Your task to perform on an android device: turn off javascript in the chrome app Image 0: 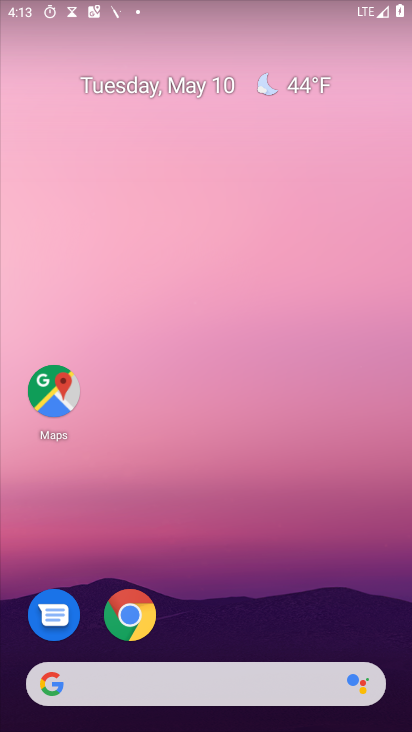
Step 0: drag from (318, 665) to (302, 0)
Your task to perform on an android device: turn off javascript in the chrome app Image 1: 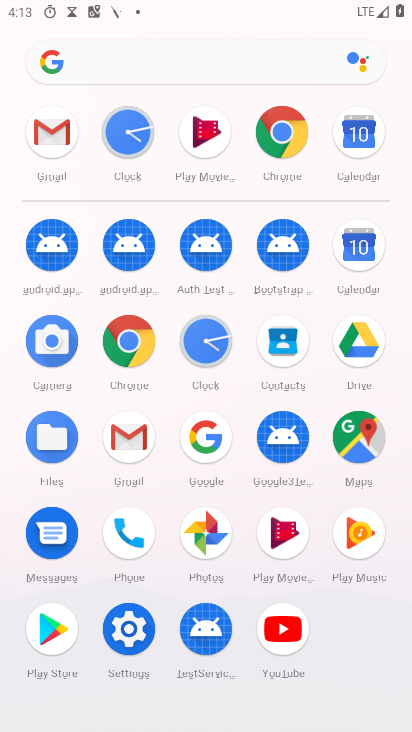
Step 1: click (125, 348)
Your task to perform on an android device: turn off javascript in the chrome app Image 2: 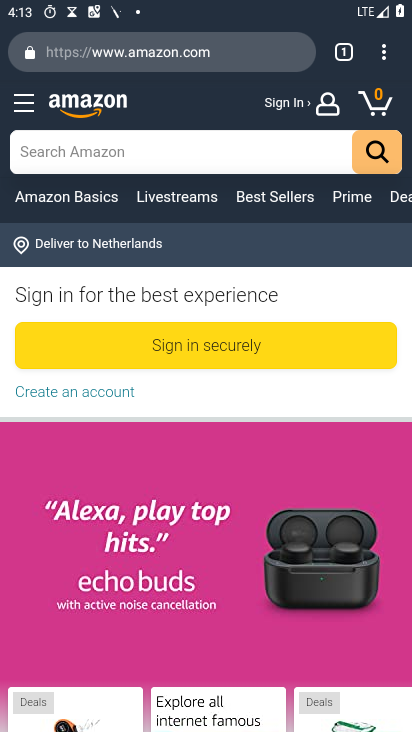
Step 2: drag from (386, 49) to (241, 623)
Your task to perform on an android device: turn off javascript in the chrome app Image 3: 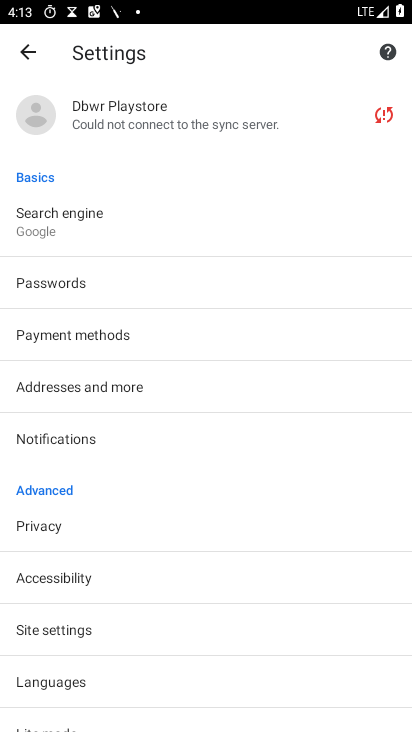
Step 3: drag from (132, 646) to (130, 435)
Your task to perform on an android device: turn off javascript in the chrome app Image 4: 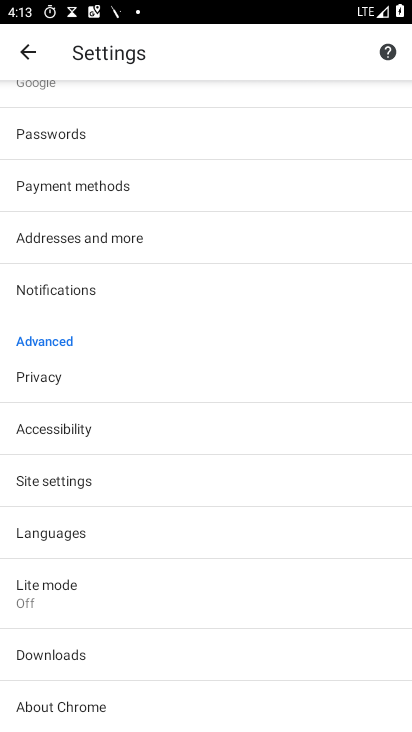
Step 4: click (86, 466)
Your task to perform on an android device: turn off javascript in the chrome app Image 5: 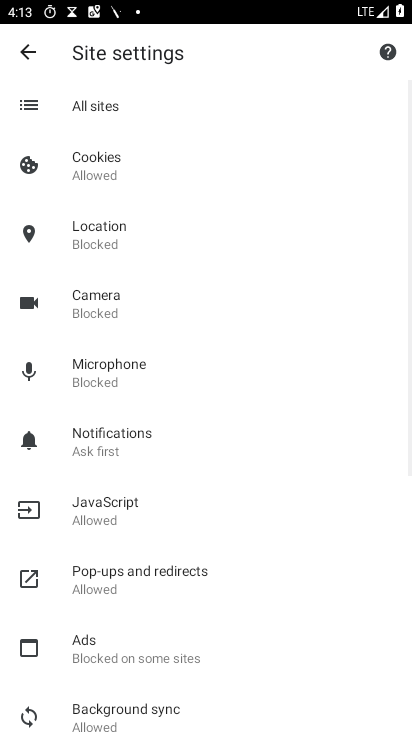
Step 5: click (159, 508)
Your task to perform on an android device: turn off javascript in the chrome app Image 6: 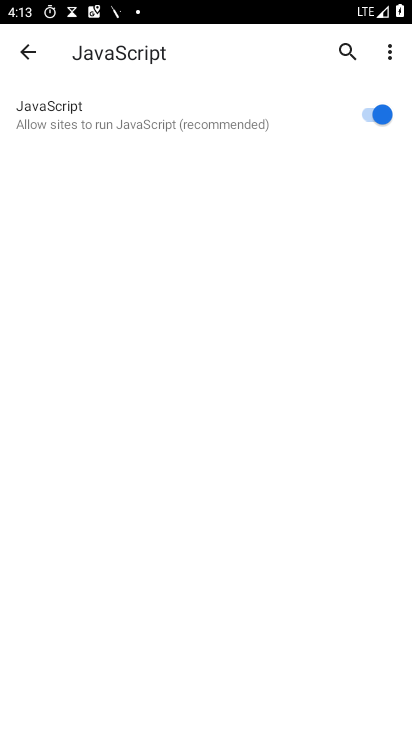
Step 6: click (374, 115)
Your task to perform on an android device: turn off javascript in the chrome app Image 7: 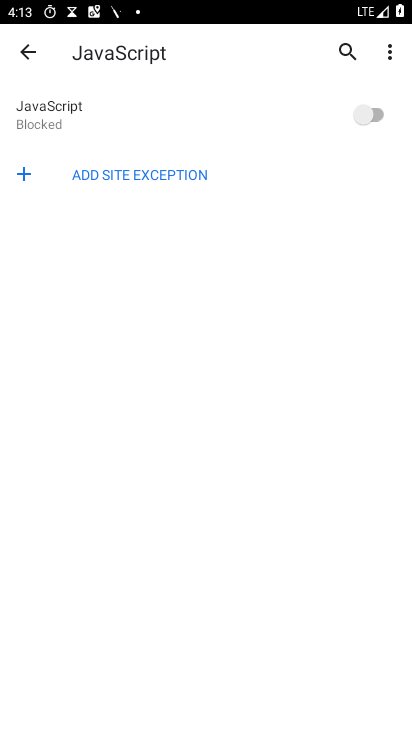
Step 7: task complete